Your task to perform on an android device: manage bookmarks in the chrome app Image 0: 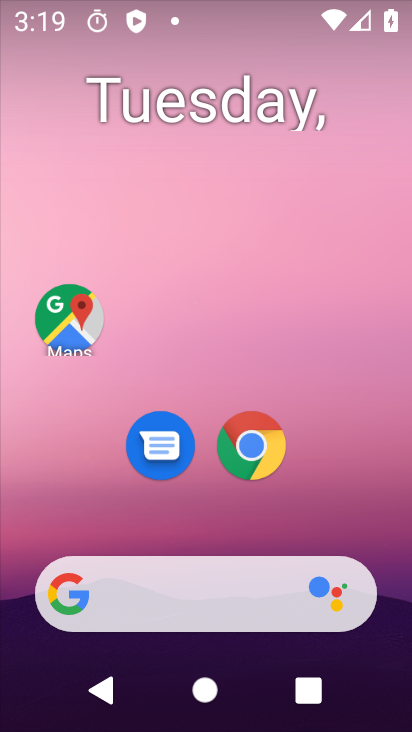
Step 0: drag from (234, 541) to (378, 9)
Your task to perform on an android device: manage bookmarks in the chrome app Image 1: 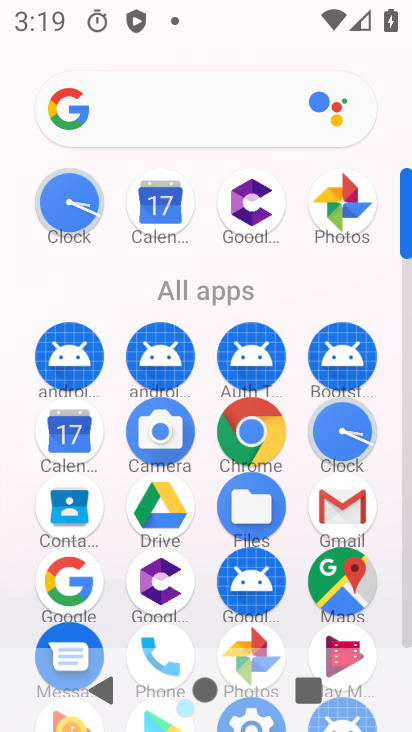
Step 1: click (255, 438)
Your task to perform on an android device: manage bookmarks in the chrome app Image 2: 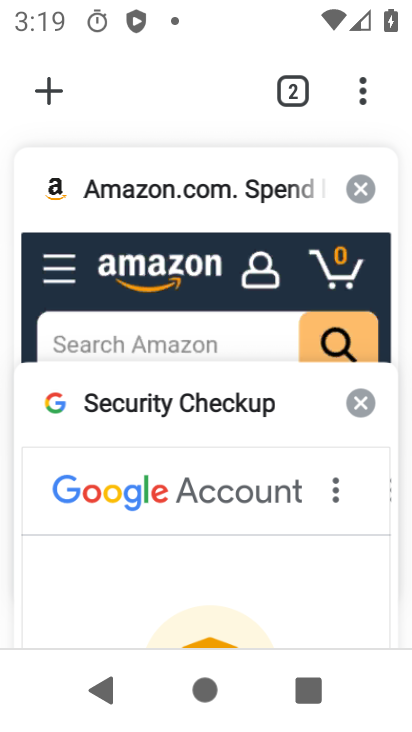
Step 2: click (228, 523)
Your task to perform on an android device: manage bookmarks in the chrome app Image 3: 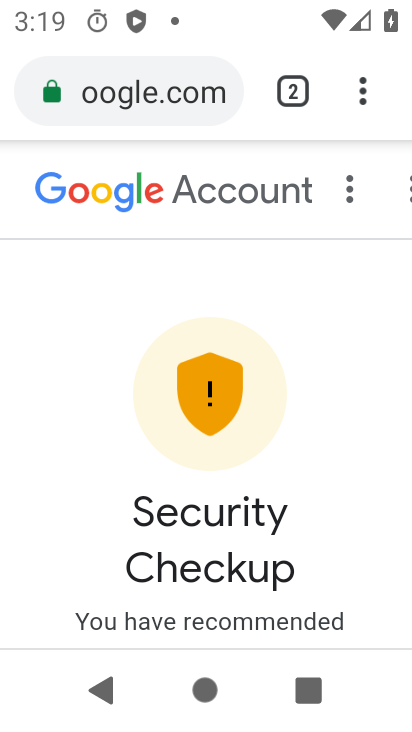
Step 3: click (367, 94)
Your task to perform on an android device: manage bookmarks in the chrome app Image 4: 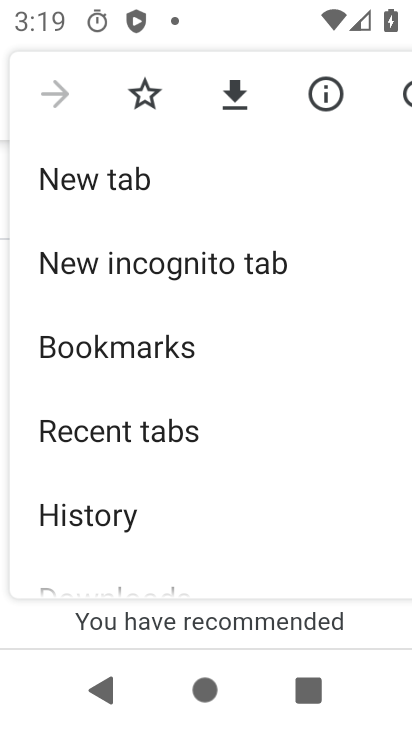
Step 4: click (155, 329)
Your task to perform on an android device: manage bookmarks in the chrome app Image 5: 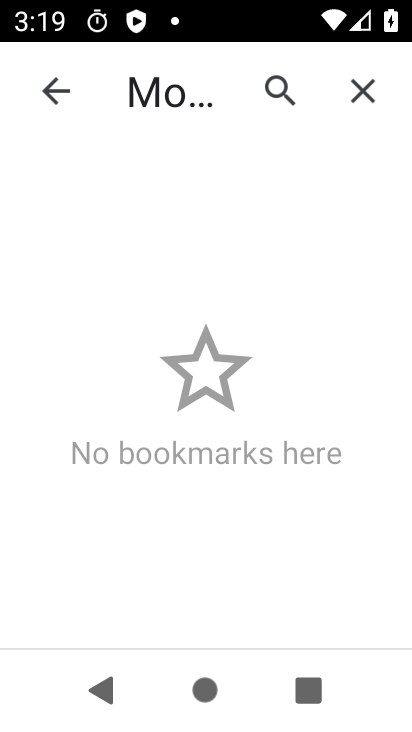
Step 5: task complete